Your task to perform on an android device: toggle notification dots Image 0: 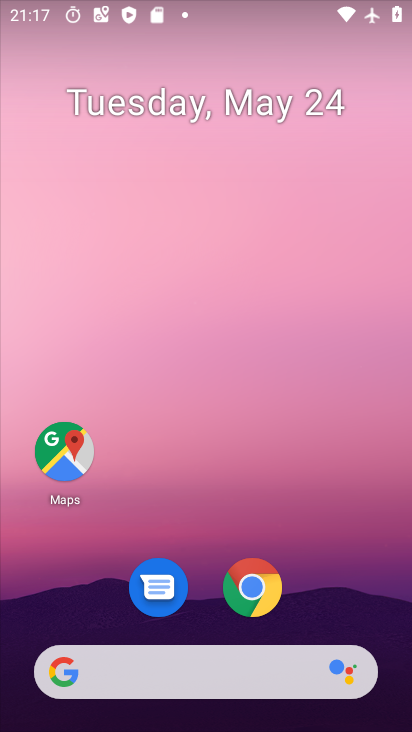
Step 0: drag from (330, 537) to (213, 32)
Your task to perform on an android device: toggle notification dots Image 1: 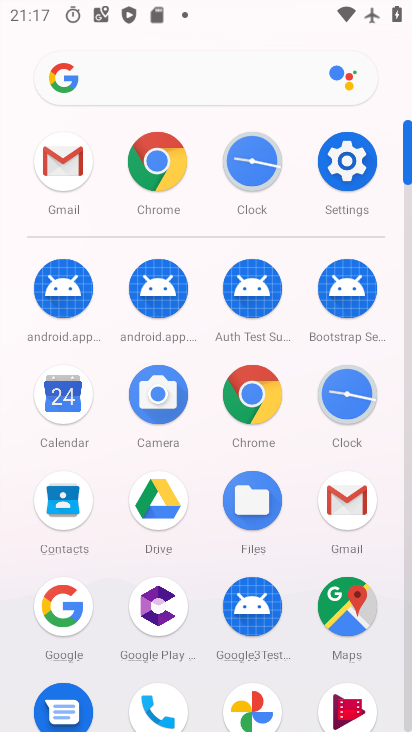
Step 1: drag from (7, 637) to (22, 365)
Your task to perform on an android device: toggle notification dots Image 2: 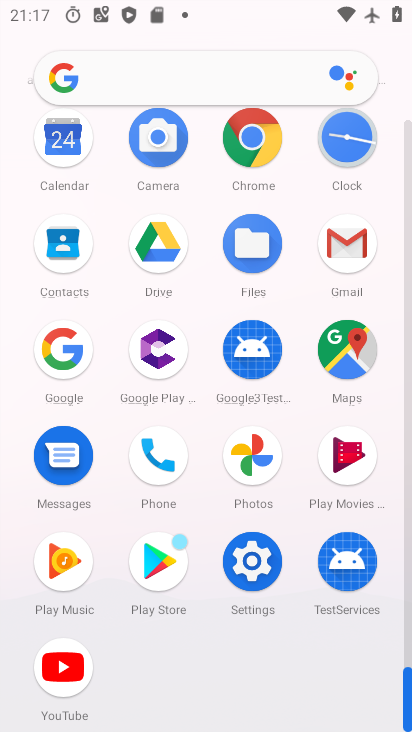
Step 2: click (251, 559)
Your task to perform on an android device: toggle notification dots Image 3: 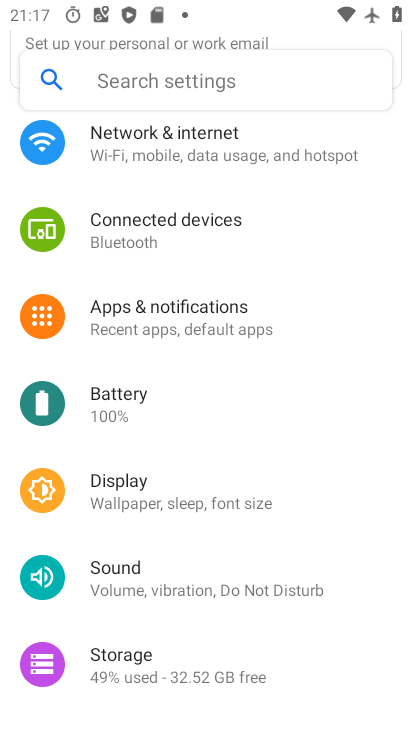
Step 3: click (220, 320)
Your task to perform on an android device: toggle notification dots Image 4: 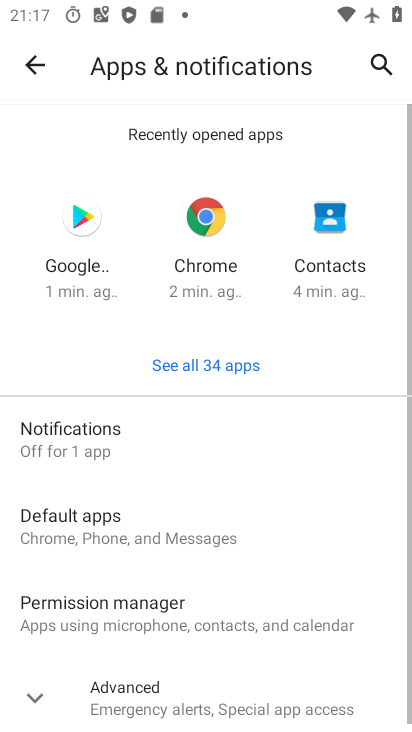
Step 4: drag from (304, 629) to (285, 162)
Your task to perform on an android device: toggle notification dots Image 5: 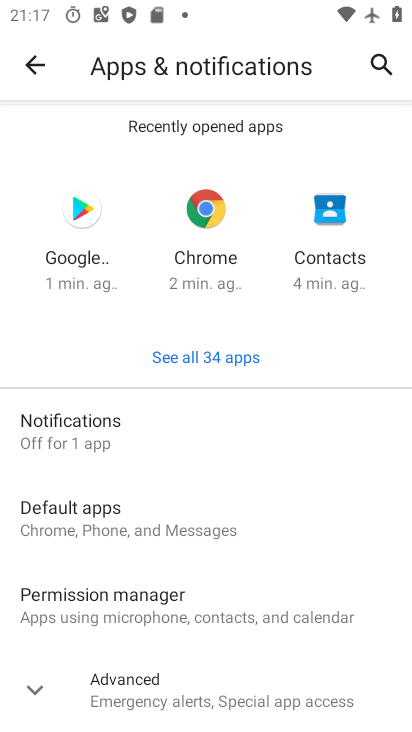
Step 5: click (18, 696)
Your task to perform on an android device: toggle notification dots Image 6: 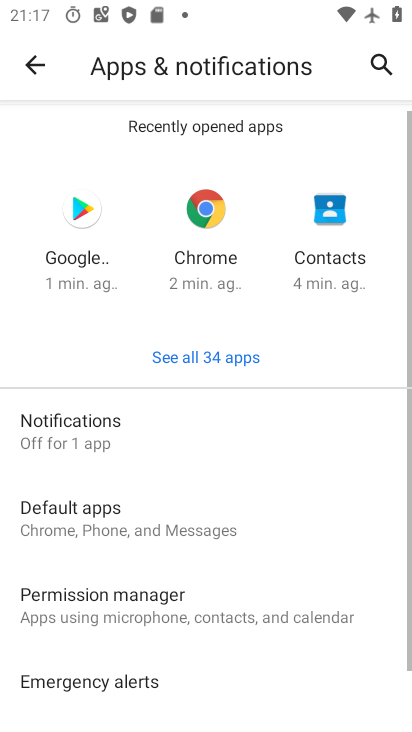
Step 6: drag from (295, 637) to (301, 156)
Your task to perform on an android device: toggle notification dots Image 7: 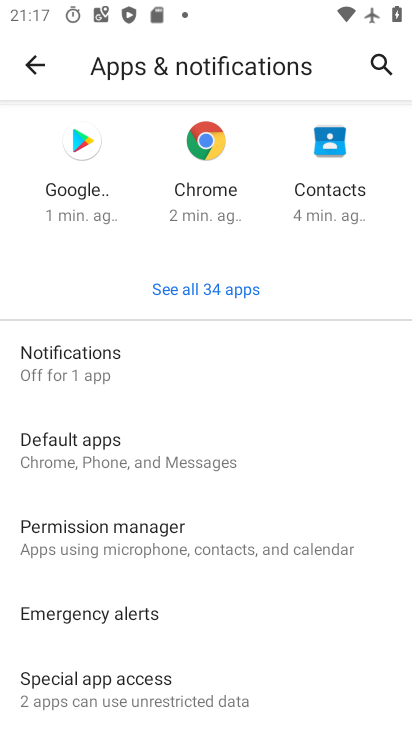
Step 7: click (156, 349)
Your task to perform on an android device: toggle notification dots Image 8: 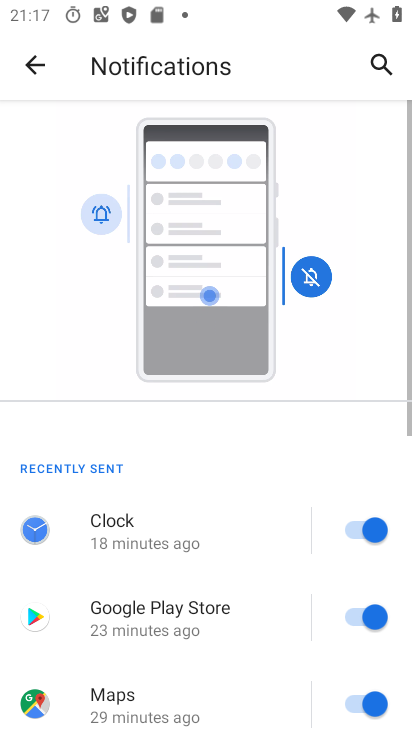
Step 8: drag from (251, 647) to (270, 217)
Your task to perform on an android device: toggle notification dots Image 9: 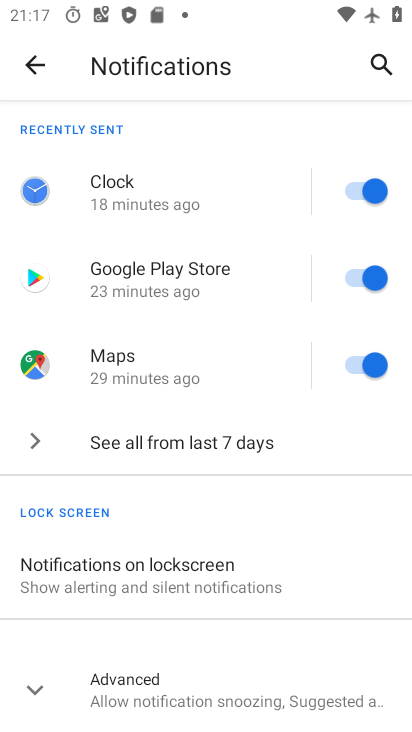
Step 9: drag from (222, 614) to (203, 234)
Your task to perform on an android device: toggle notification dots Image 10: 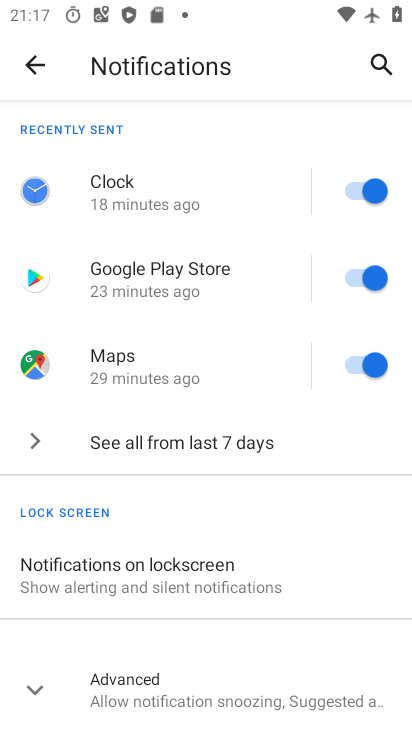
Step 10: click (29, 688)
Your task to perform on an android device: toggle notification dots Image 11: 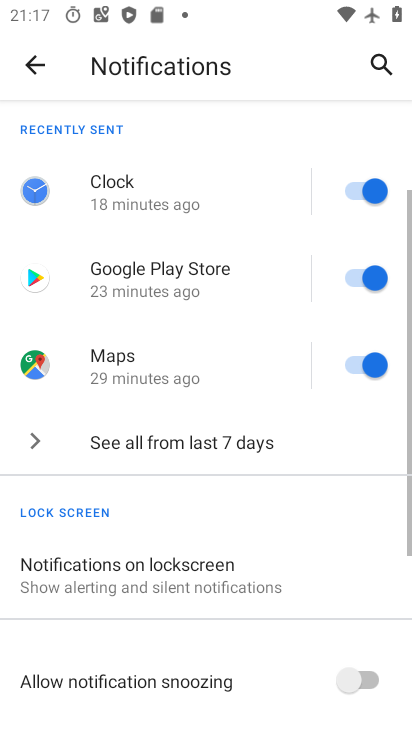
Step 11: drag from (251, 648) to (251, 279)
Your task to perform on an android device: toggle notification dots Image 12: 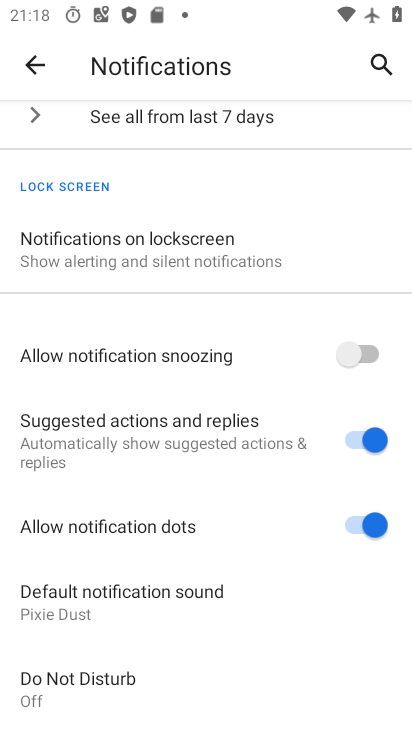
Step 12: click (363, 525)
Your task to perform on an android device: toggle notification dots Image 13: 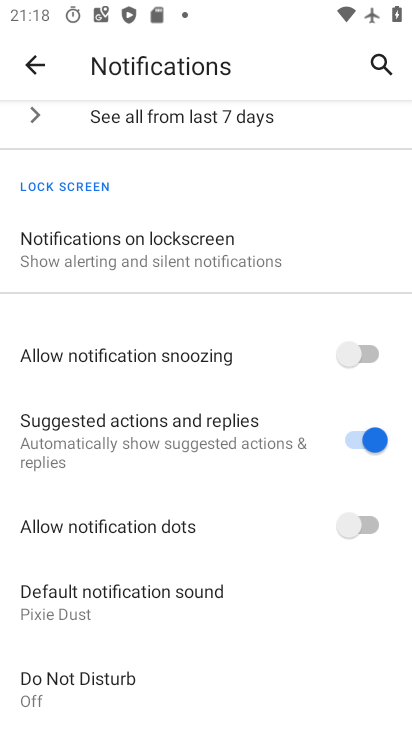
Step 13: task complete